Your task to perform on an android device: Go to internet settings Image 0: 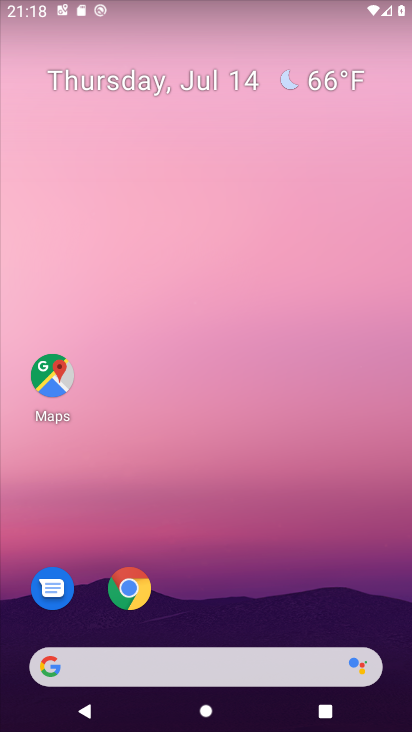
Step 0: drag from (345, 586) to (359, 32)
Your task to perform on an android device: Go to internet settings Image 1: 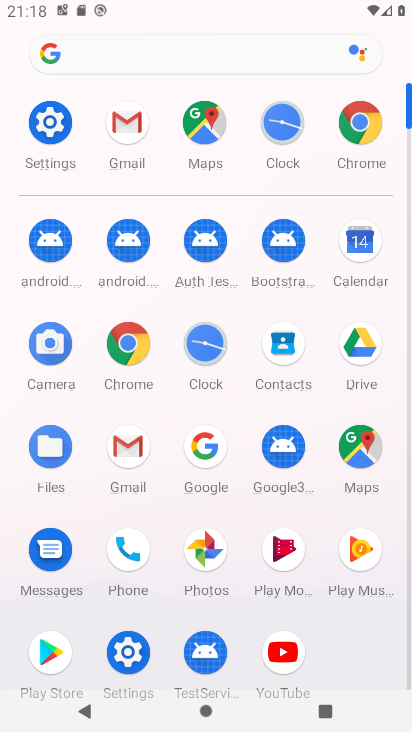
Step 1: click (51, 130)
Your task to perform on an android device: Go to internet settings Image 2: 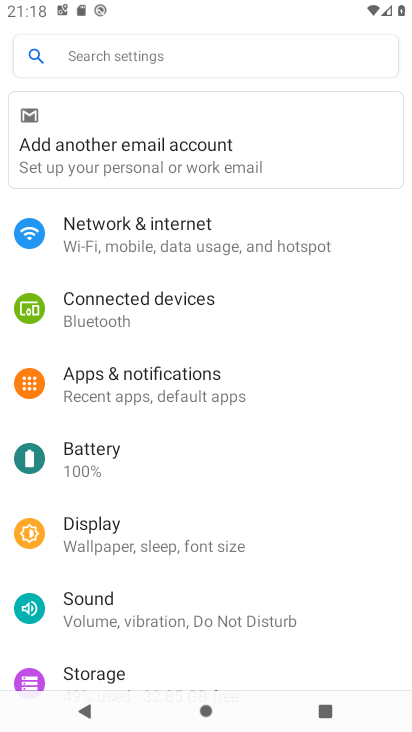
Step 2: drag from (306, 410) to (313, 328)
Your task to perform on an android device: Go to internet settings Image 3: 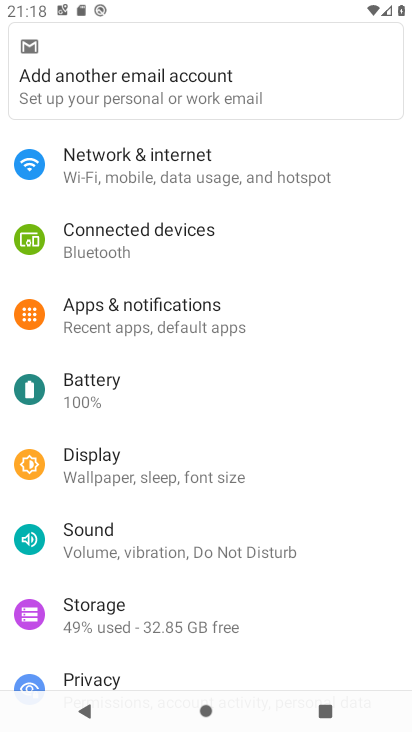
Step 3: drag from (339, 399) to (340, 327)
Your task to perform on an android device: Go to internet settings Image 4: 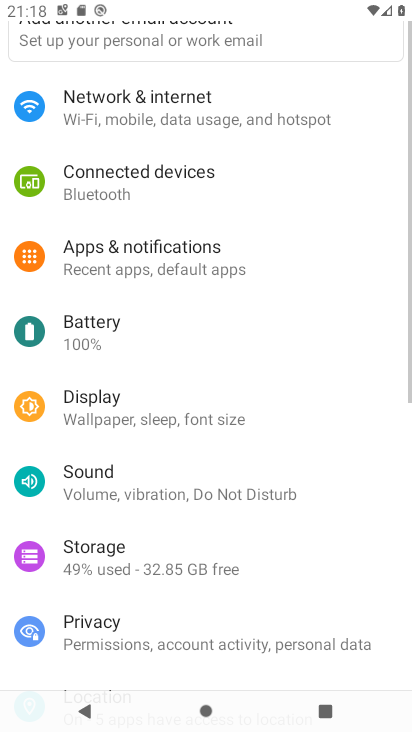
Step 4: drag from (336, 393) to (338, 241)
Your task to perform on an android device: Go to internet settings Image 5: 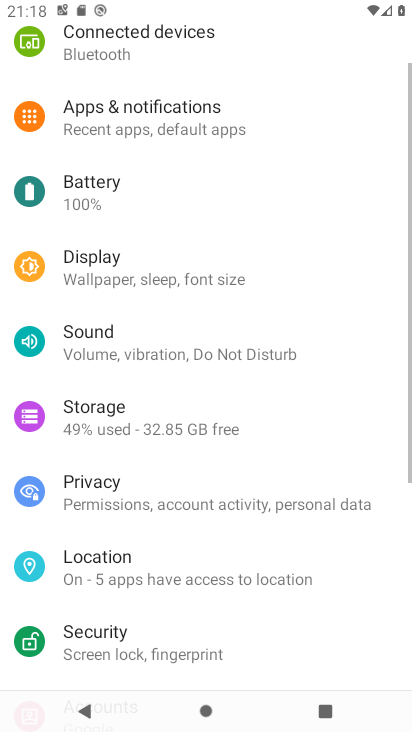
Step 5: drag from (321, 331) to (321, 205)
Your task to perform on an android device: Go to internet settings Image 6: 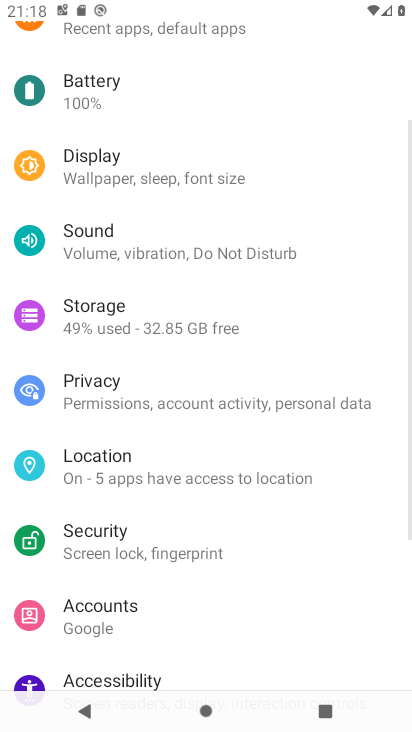
Step 6: drag from (343, 385) to (336, 285)
Your task to perform on an android device: Go to internet settings Image 7: 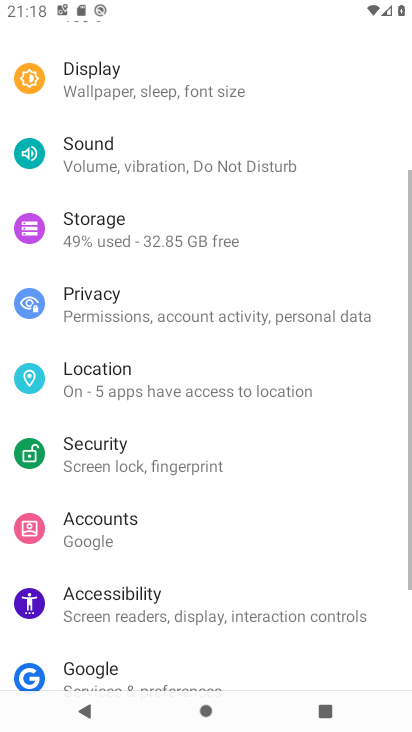
Step 7: drag from (327, 412) to (332, 287)
Your task to perform on an android device: Go to internet settings Image 8: 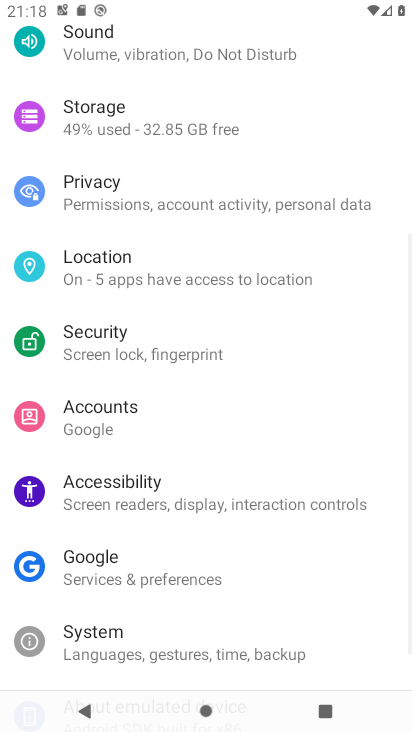
Step 8: drag from (332, 411) to (342, 229)
Your task to perform on an android device: Go to internet settings Image 9: 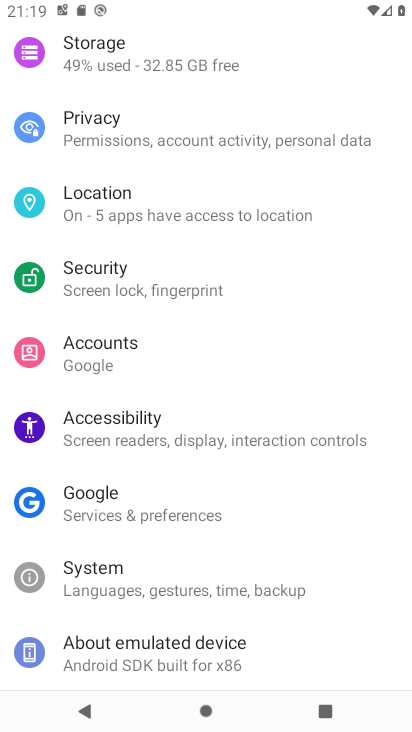
Step 9: drag from (346, 226) to (357, 312)
Your task to perform on an android device: Go to internet settings Image 10: 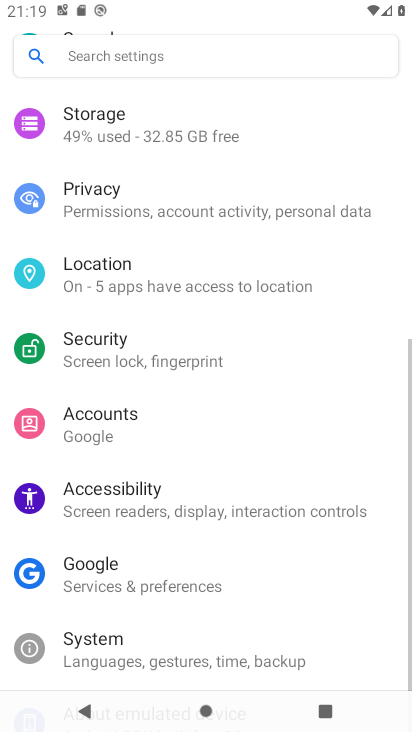
Step 10: drag from (363, 171) to (378, 309)
Your task to perform on an android device: Go to internet settings Image 11: 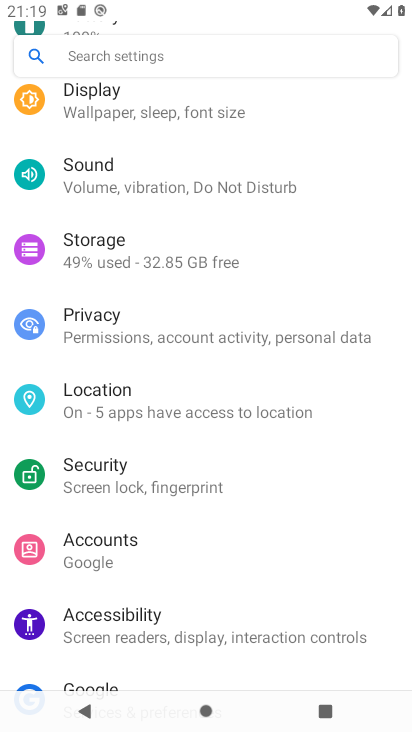
Step 11: drag from (375, 276) to (378, 367)
Your task to perform on an android device: Go to internet settings Image 12: 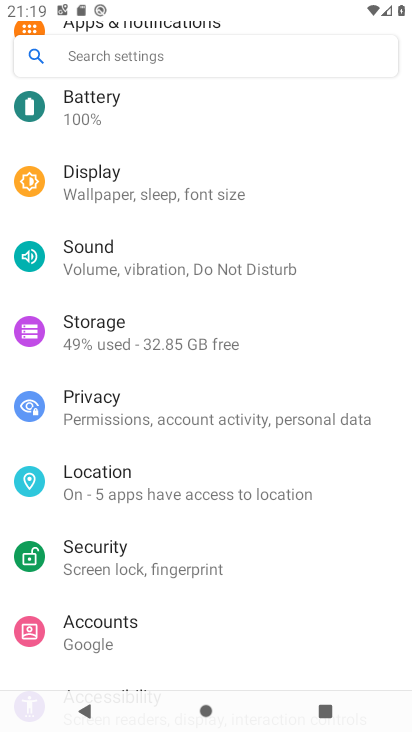
Step 12: drag from (379, 184) to (374, 387)
Your task to perform on an android device: Go to internet settings Image 13: 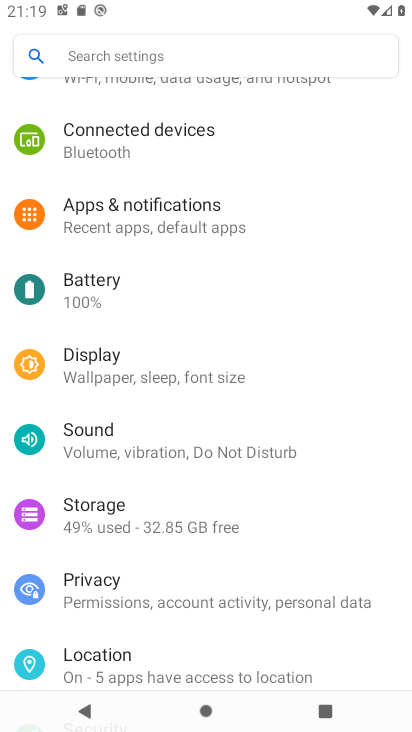
Step 13: drag from (350, 290) to (350, 414)
Your task to perform on an android device: Go to internet settings Image 14: 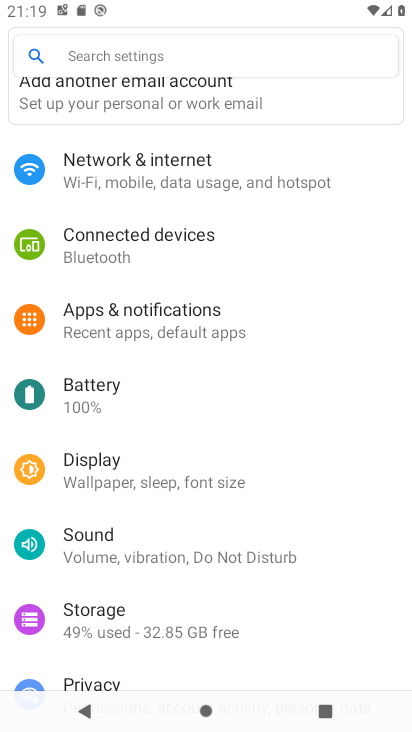
Step 14: click (239, 183)
Your task to perform on an android device: Go to internet settings Image 15: 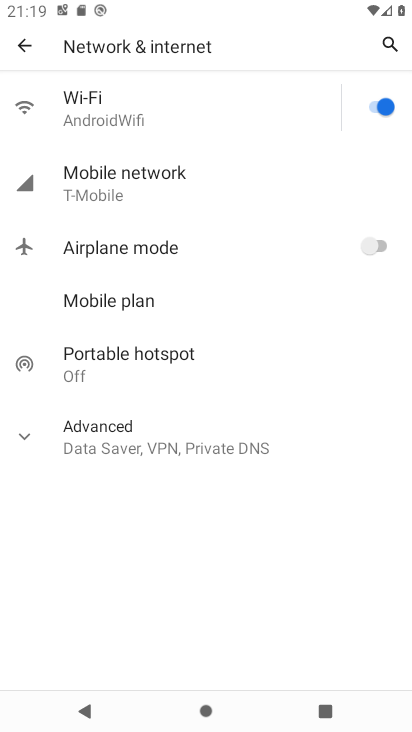
Step 15: task complete